Your task to perform on an android device: turn off airplane mode Image 0: 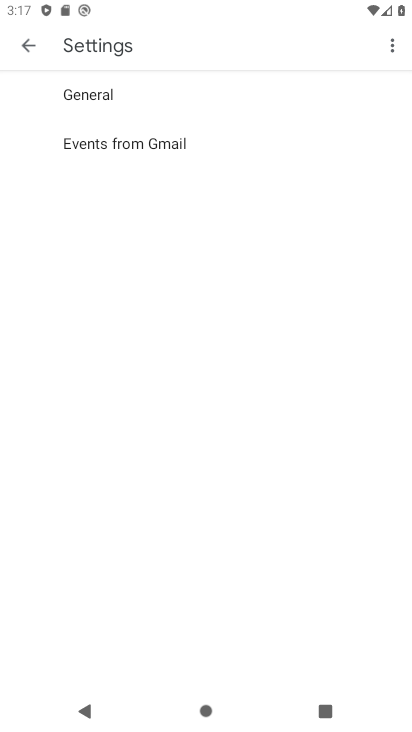
Step 0: press home button
Your task to perform on an android device: turn off airplane mode Image 1: 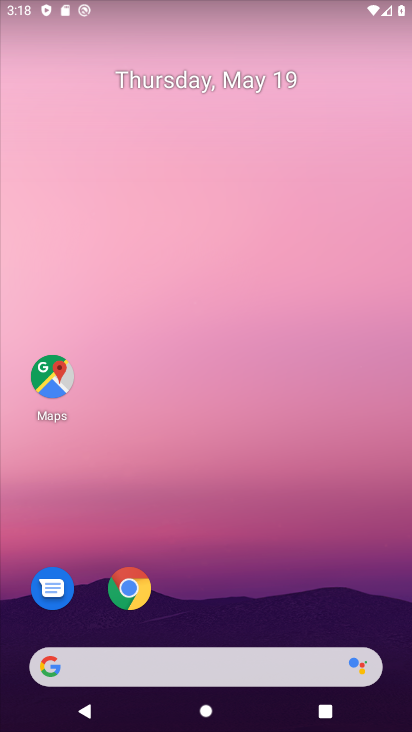
Step 1: drag from (248, 538) to (278, 221)
Your task to perform on an android device: turn off airplane mode Image 2: 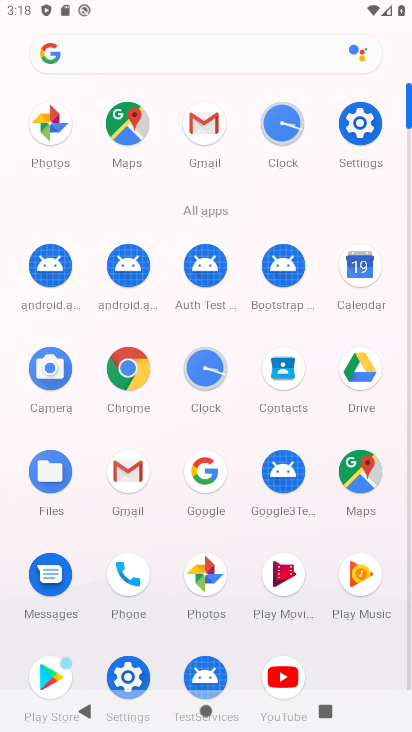
Step 2: click (355, 152)
Your task to perform on an android device: turn off airplane mode Image 3: 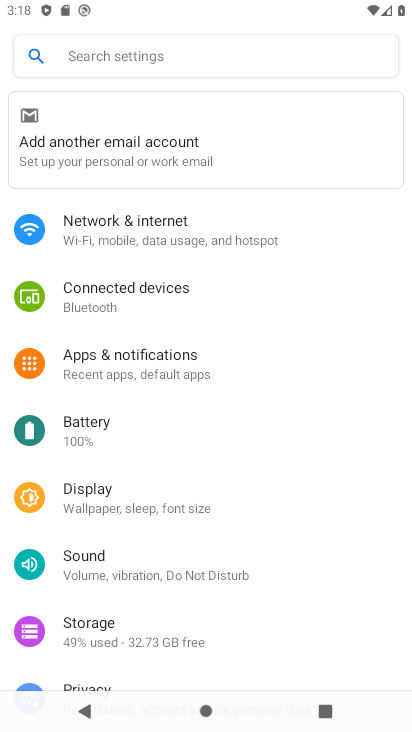
Step 3: click (178, 240)
Your task to perform on an android device: turn off airplane mode Image 4: 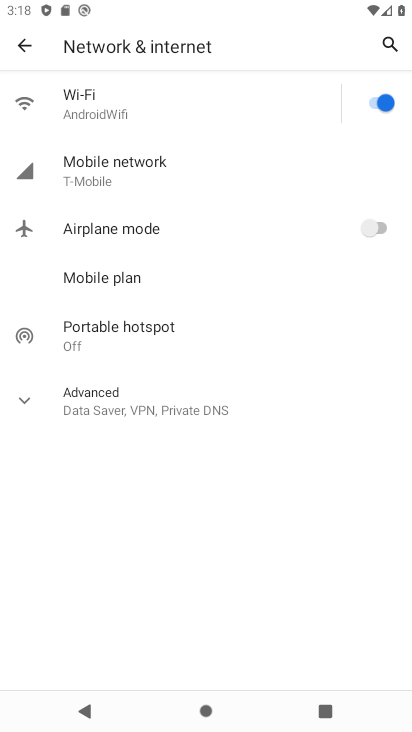
Step 4: task complete